Your task to perform on an android device: turn on bluetooth scan Image 0: 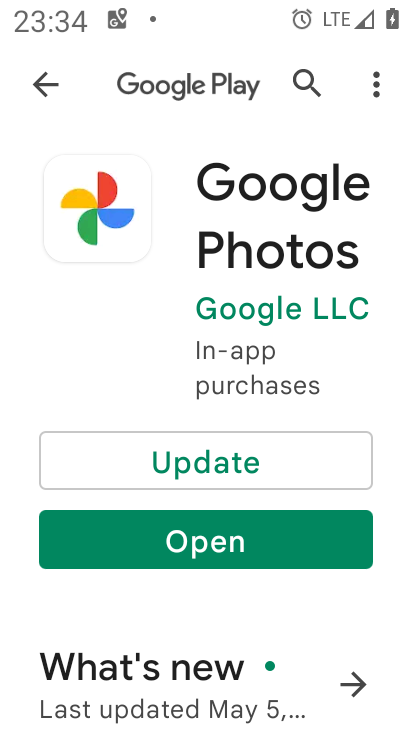
Step 0: press home button
Your task to perform on an android device: turn on bluetooth scan Image 1: 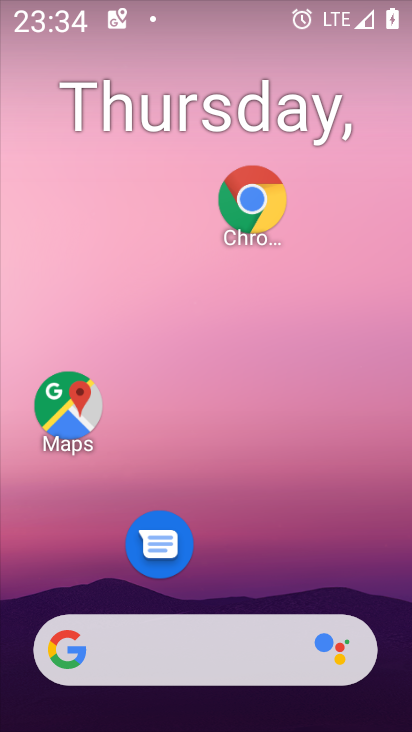
Step 1: drag from (243, 583) to (279, 252)
Your task to perform on an android device: turn on bluetooth scan Image 2: 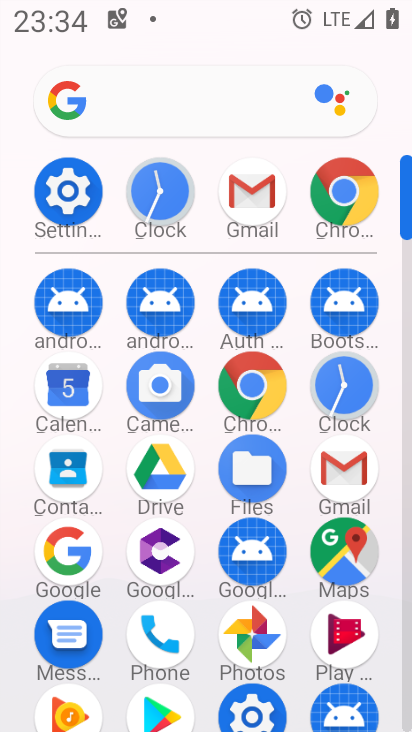
Step 2: click (44, 192)
Your task to perform on an android device: turn on bluetooth scan Image 3: 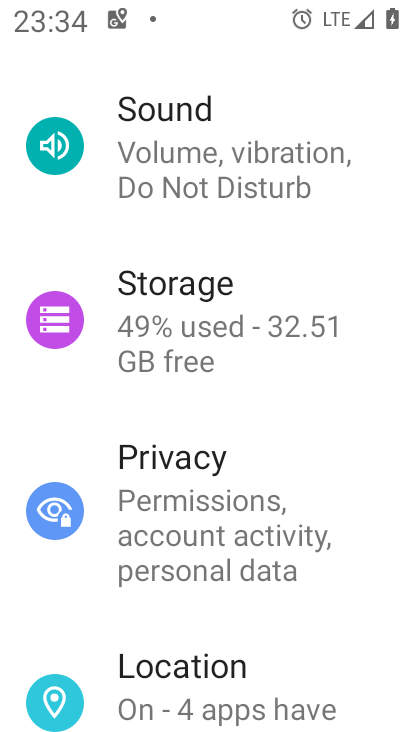
Step 3: click (164, 693)
Your task to perform on an android device: turn on bluetooth scan Image 4: 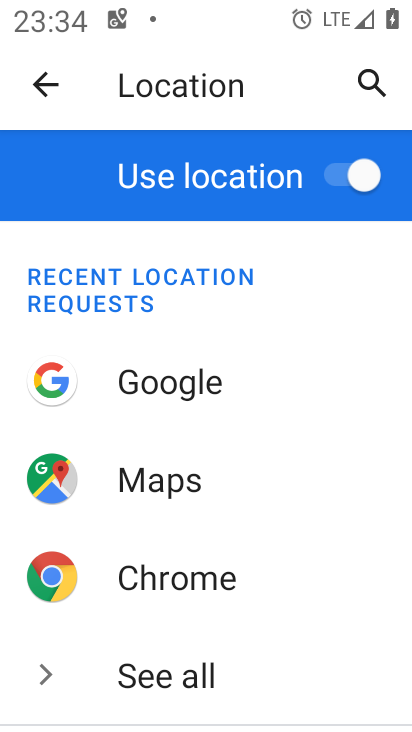
Step 4: drag from (122, 680) to (164, 336)
Your task to perform on an android device: turn on bluetooth scan Image 5: 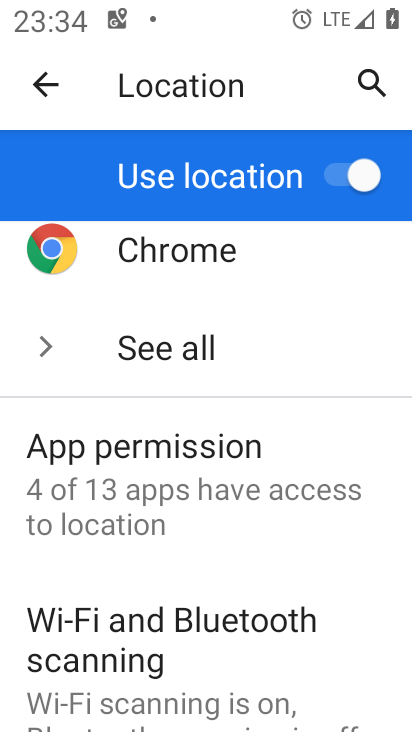
Step 5: drag from (121, 583) to (264, 129)
Your task to perform on an android device: turn on bluetooth scan Image 6: 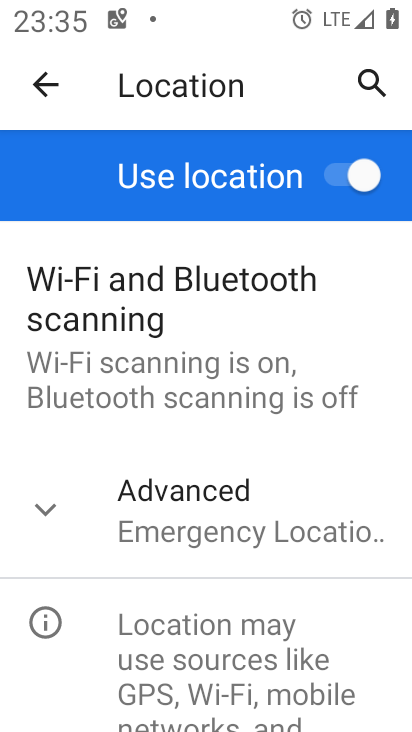
Step 6: click (236, 503)
Your task to perform on an android device: turn on bluetooth scan Image 7: 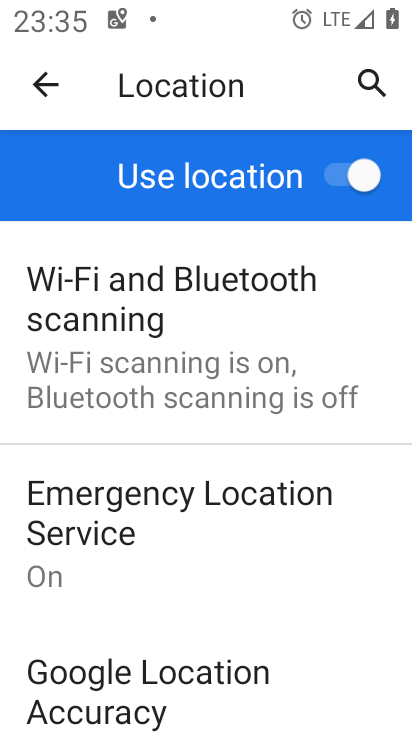
Step 7: drag from (148, 642) to (192, 225)
Your task to perform on an android device: turn on bluetooth scan Image 8: 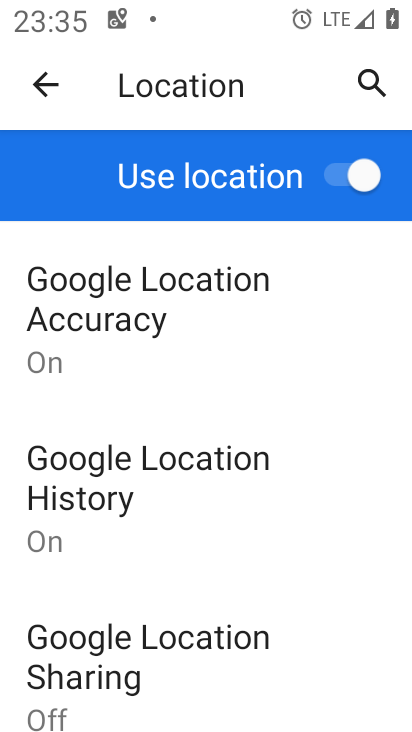
Step 8: drag from (177, 298) to (155, 582)
Your task to perform on an android device: turn on bluetooth scan Image 9: 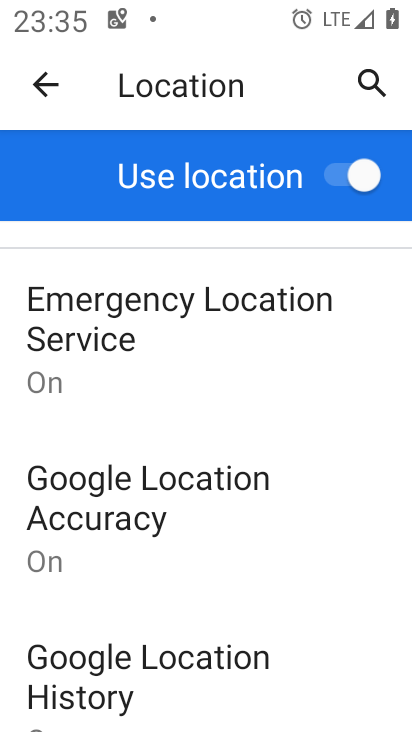
Step 9: drag from (212, 304) to (189, 651)
Your task to perform on an android device: turn on bluetooth scan Image 10: 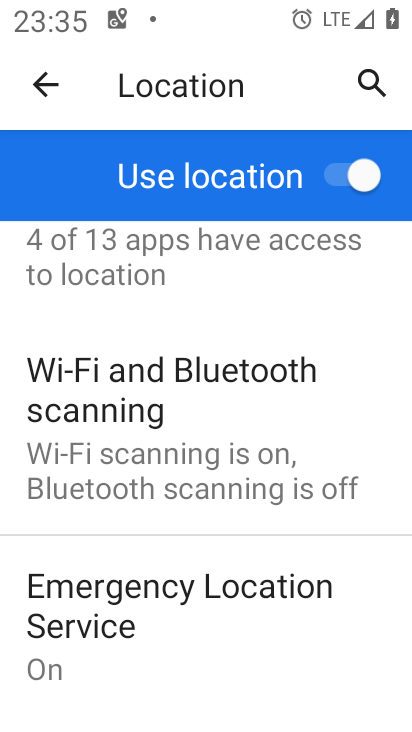
Step 10: click (187, 492)
Your task to perform on an android device: turn on bluetooth scan Image 11: 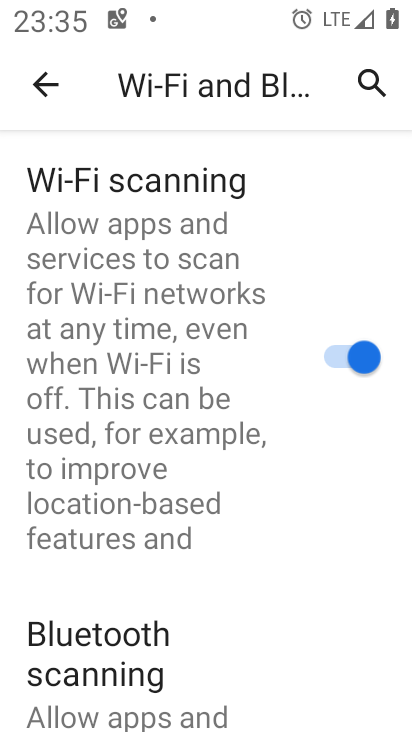
Step 11: drag from (156, 646) to (272, 223)
Your task to perform on an android device: turn on bluetooth scan Image 12: 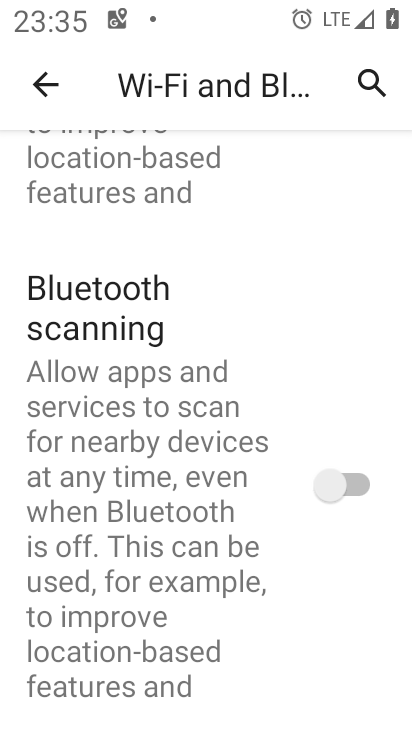
Step 12: click (346, 482)
Your task to perform on an android device: turn on bluetooth scan Image 13: 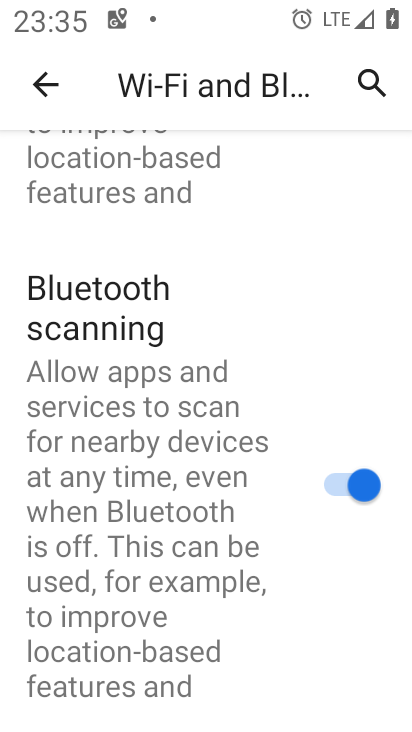
Step 13: task complete